Your task to perform on an android device: Go to Google Image 0: 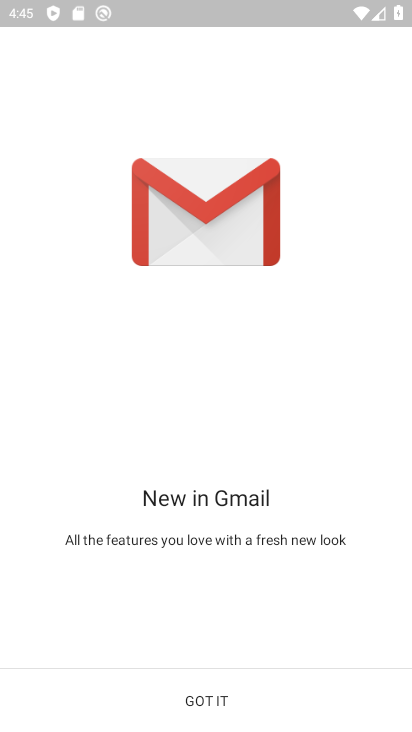
Step 0: press home button
Your task to perform on an android device: Go to Google Image 1: 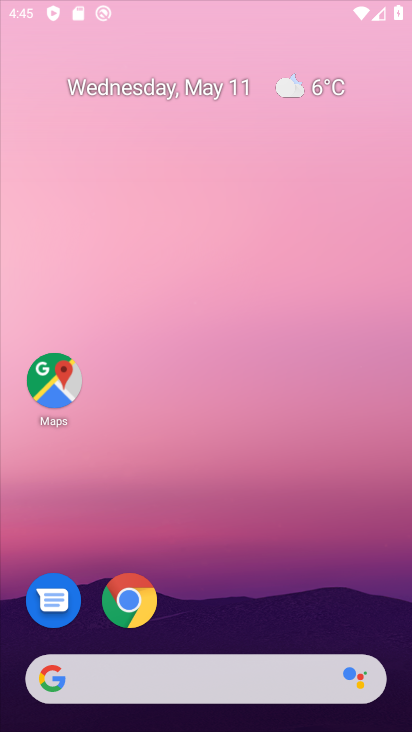
Step 1: drag from (199, 562) to (226, 63)
Your task to perform on an android device: Go to Google Image 2: 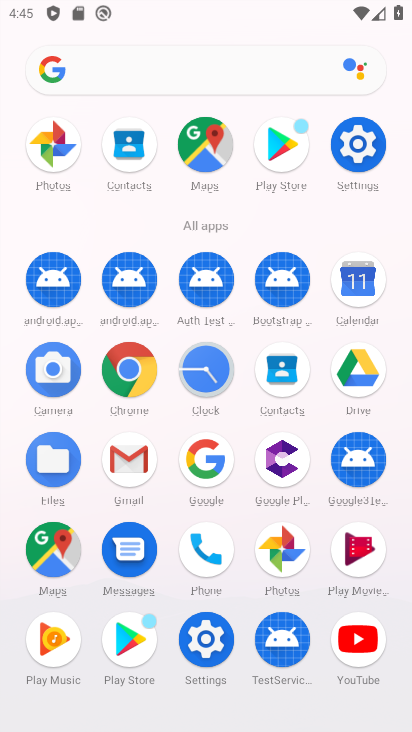
Step 2: click (201, 458)
Your task to perform on an android device: Go to Google Image 3: 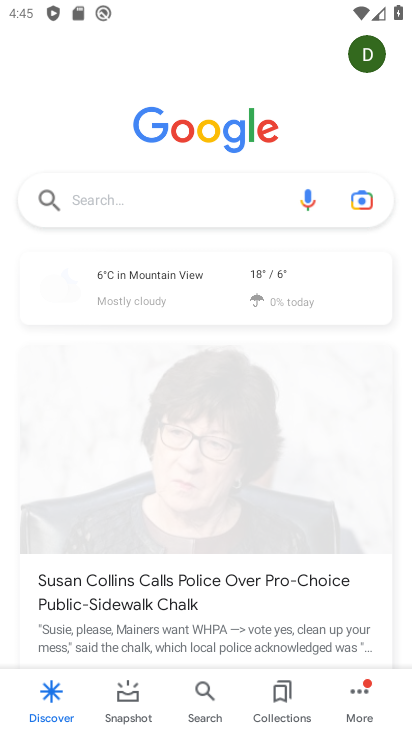
Step 3: task complete